Your task to perform on an android device: change the clock style Image 0: 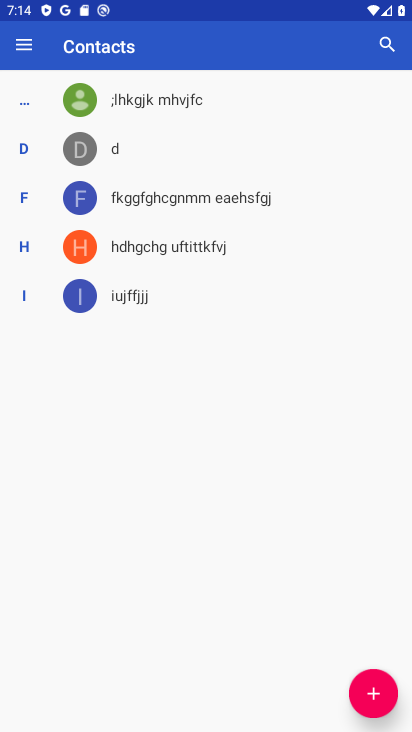
Step 0: press home button
Your task to perform on an android device: change the clock style Image 1: 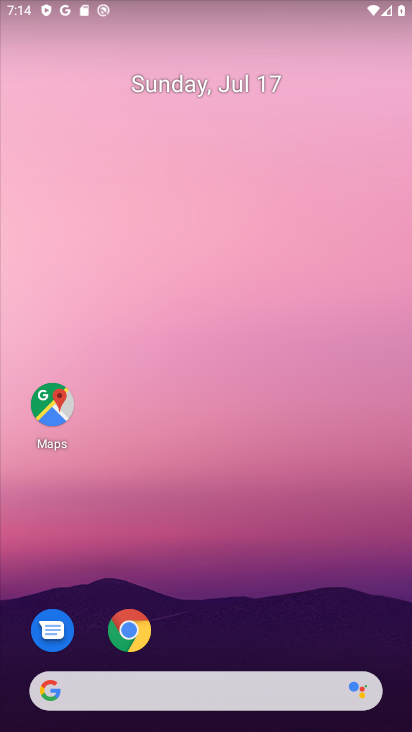
Step 1: drag from (228, 636) to (246, 312)
Your task to perform on an android device: change the clock style Image 2: 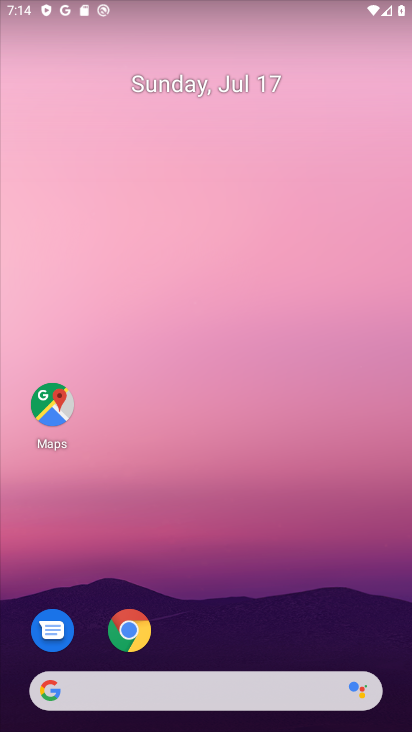
Step 2: drag from (177, 619) to (296, 15)
Your task to perform on an android device: change the clock style Image 3: 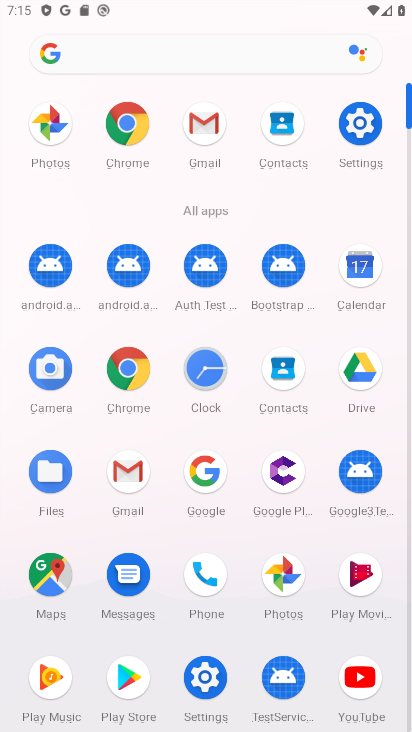
Step 3: click (209, 381)
Your task to perform on an android device: change the clock style Image 4: 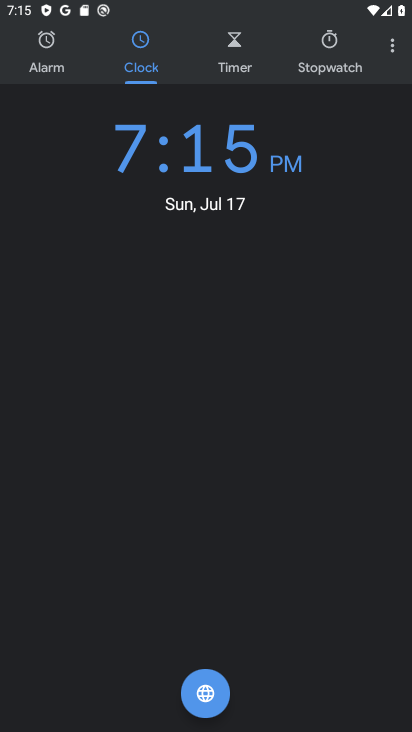
Step 4: click (394, 51)
Your task to perform on an android device: change the clock style Image 5: 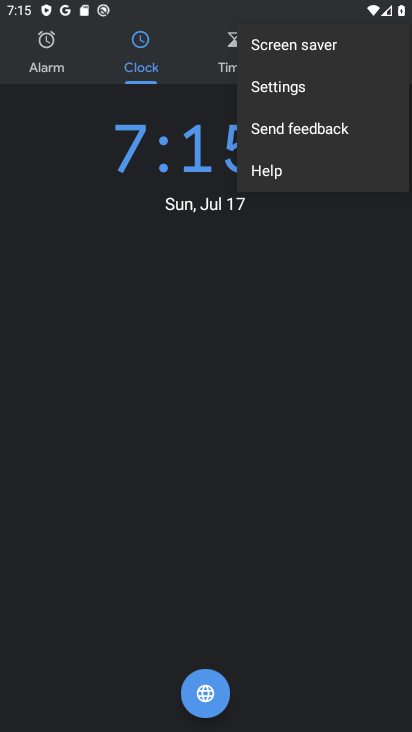
Step 5: click (320, 83)
Your task to perform on an android device: change the clock style Image 6: 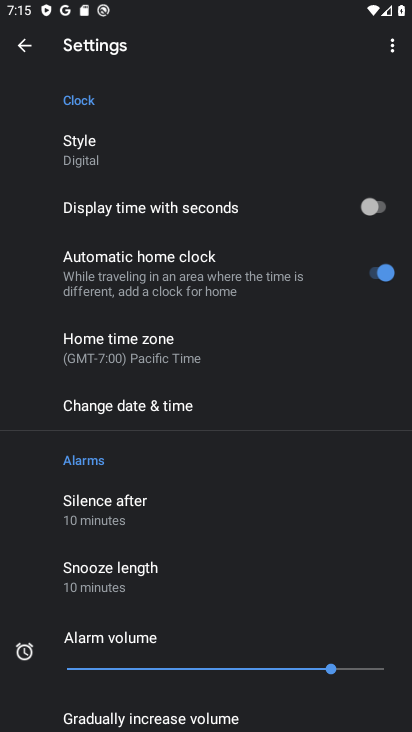
Step 6: click (119, 157)
Your task to perform on an android device: change the clock style Image 7: 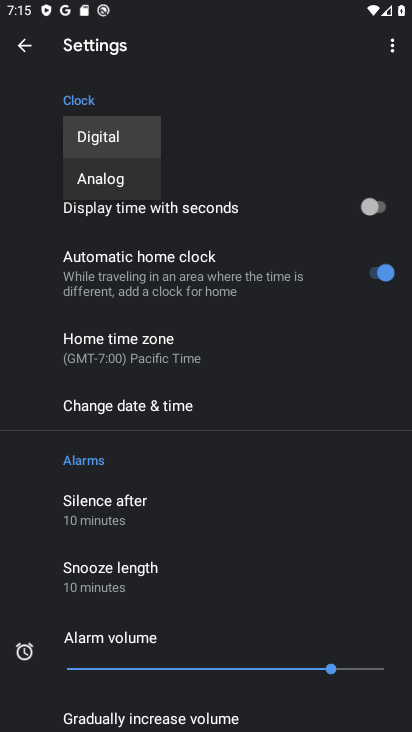
Step 7: click (100, 181)
Your task to perform on an android device: change the clock style Image 8: 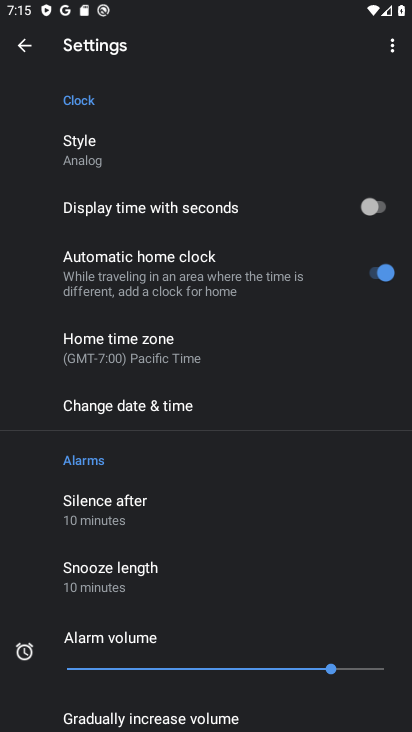
Step 8: task complete